Your task to perform on an android device: find photos in the google photos app Image 0: 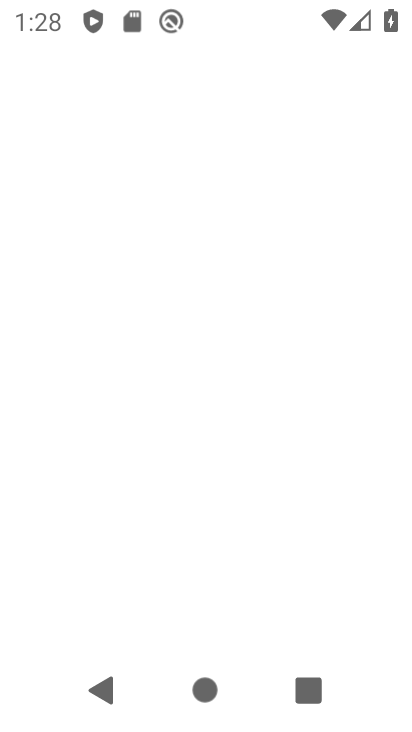
Step 0: press home button
Your task to perform on an android device: find photos in the google photos app Image 1: 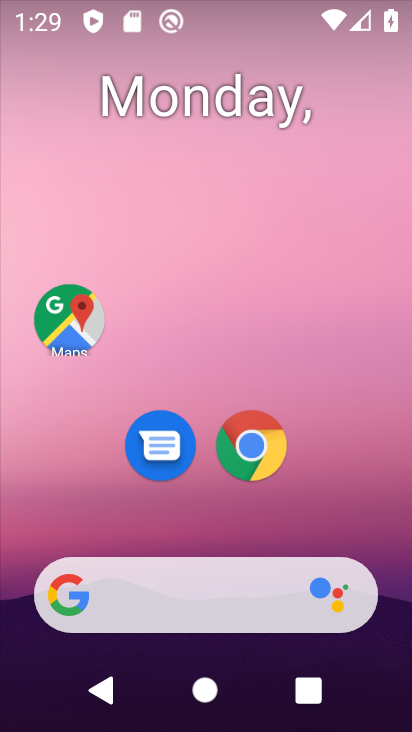
Step 1: drag from (209, 514) to (306, 68)
Your task to perform on an android device: find photos in the google photos app Image 2: 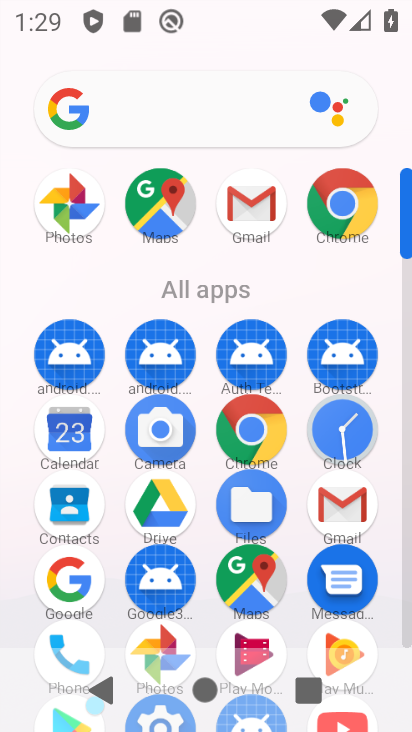
Step 2: click (67, 203)
Your task to perform on an android device: find photos in the google photos app Image 3: 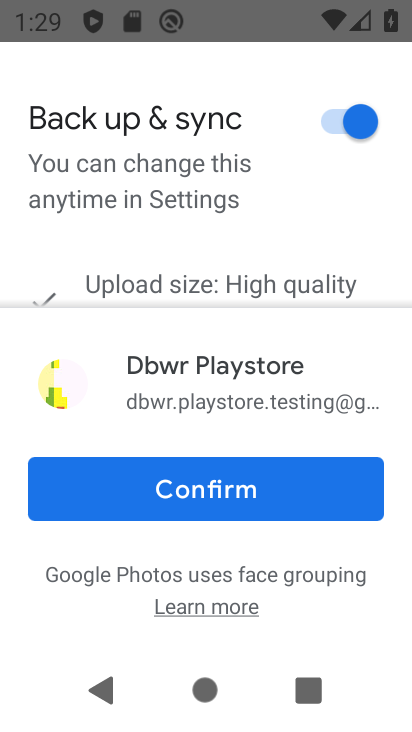
Step 3: click (230, 480)
Your task to perform on an android device: find photos in the google photos app Image 4: 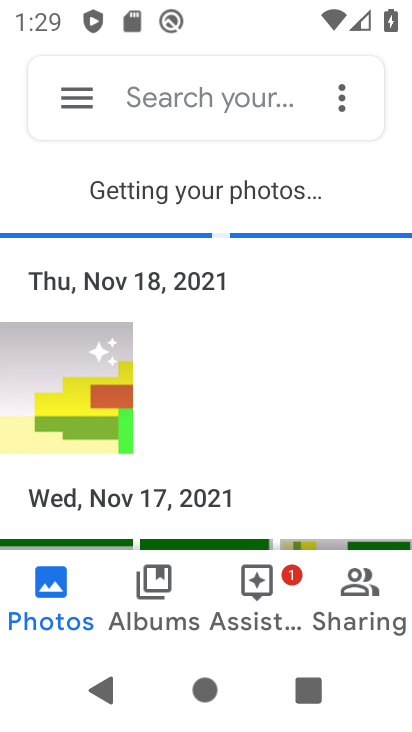
Step 4: task complete